Your task to perform on an android device: empty trash in the gmail app Image 0: 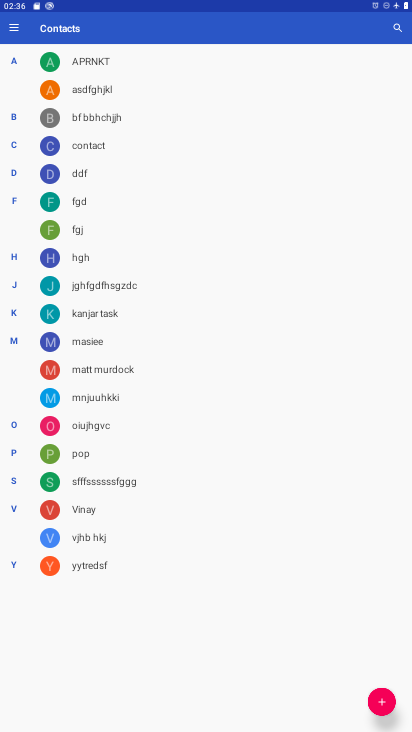
Step 0: press home button
Your task to perform on an android device: empty trash in the gmail app Image 1: 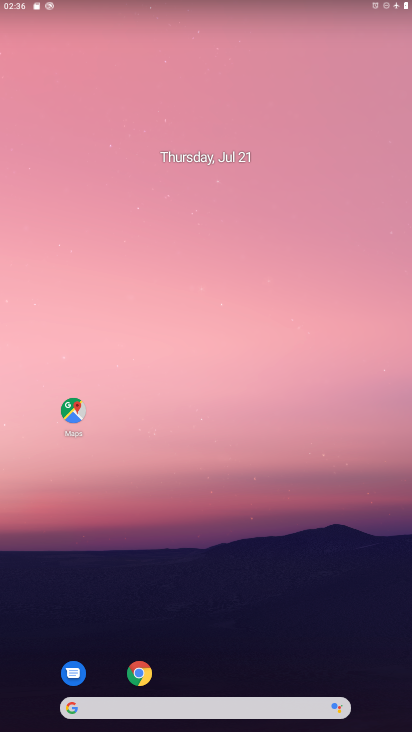
Step 1: drag from (202, 623) to (226, 14)
Your task to perform on an android device: empty trash in the gmail app Image 2: 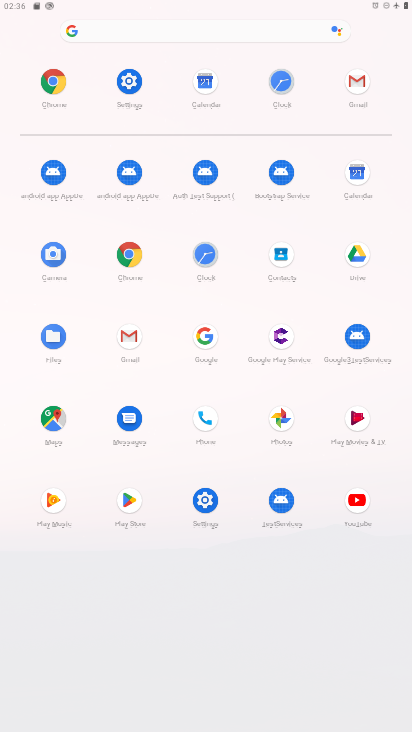
Step 2: click (285, 412)
Your task to perform on an android device: empty trash in the gmail app Image 3: 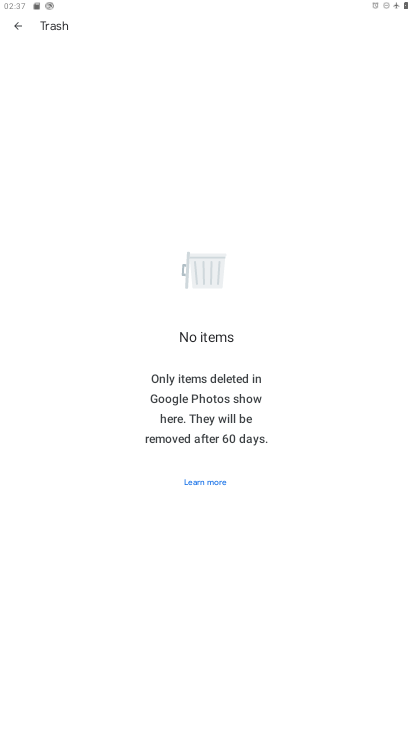
Step 3: task complete